Your task to perform on an android device: Add energizer triple a to the cart on amazon.com Image 0: 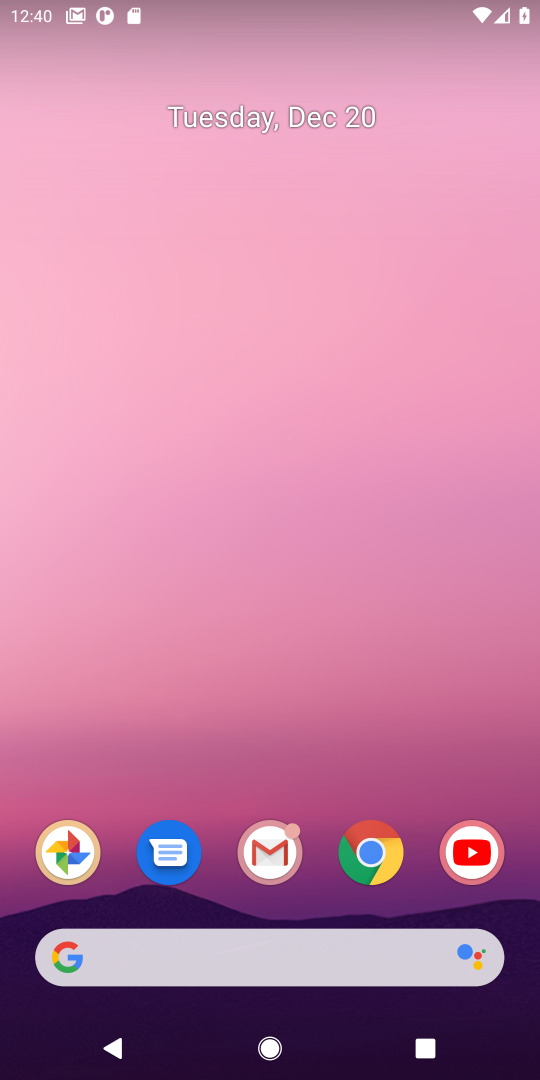
Step 0: press home button
Your task to perform on an android device: Add energizer triple a to the cart on amazon.com Image 1: 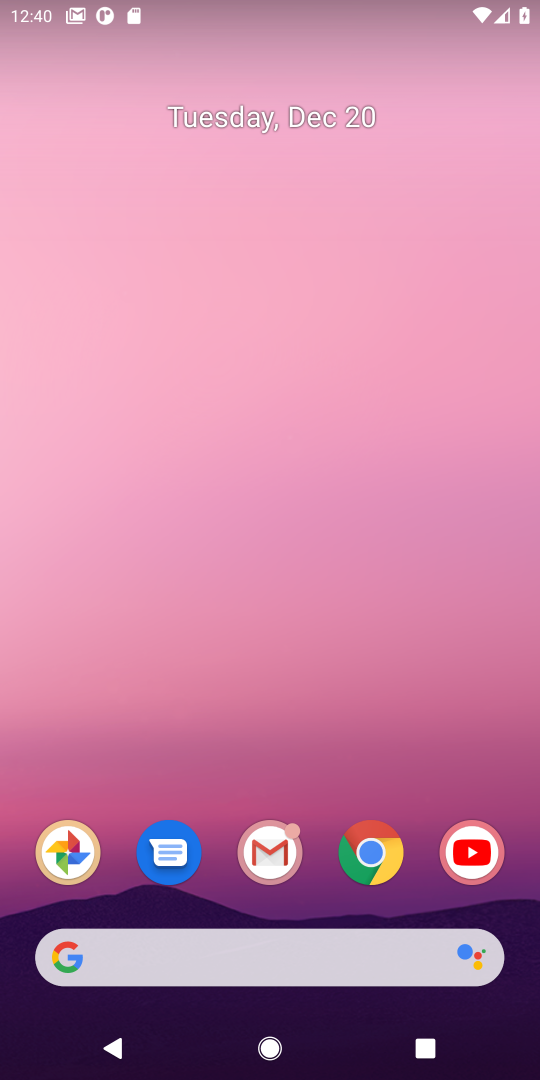
Step 1: click (375, 854)
Your task to perform on an android device: Add energizer triple a to the cart on amazon.com Image 2: 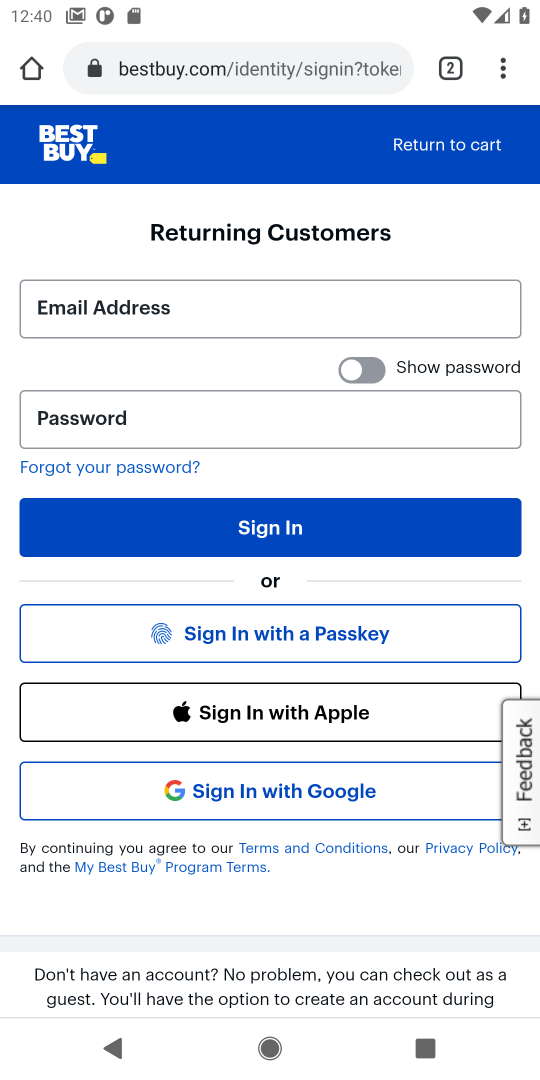
Step 2: click (216, 74)
Your task to perform on an android device: Add energizer triple a to the cart on amazon.com Image 3: 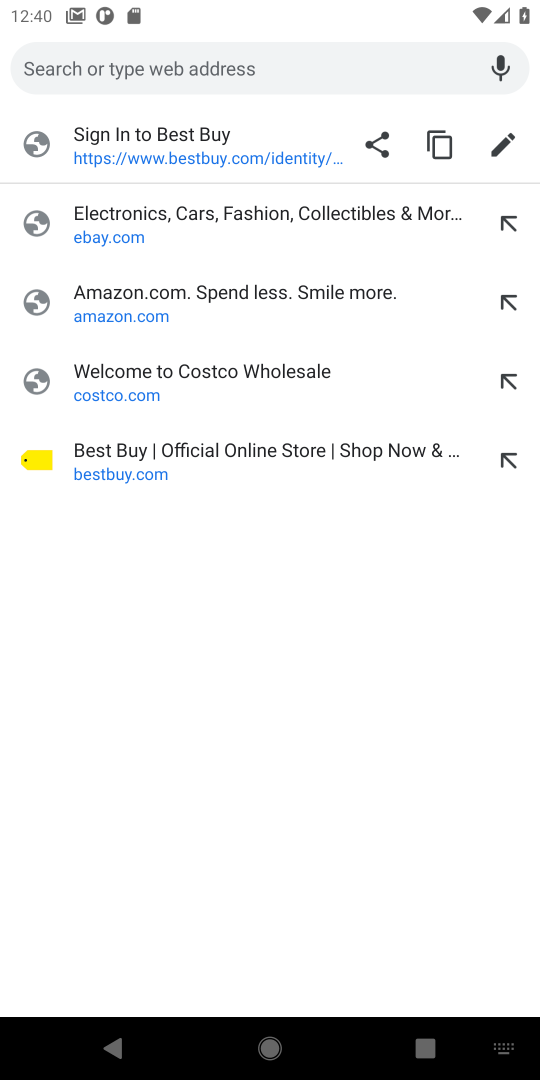
Step 3: click (131, 297)
Your task to perform on an android device: Add energizer triple a to the cart on amazon.com Image 4: 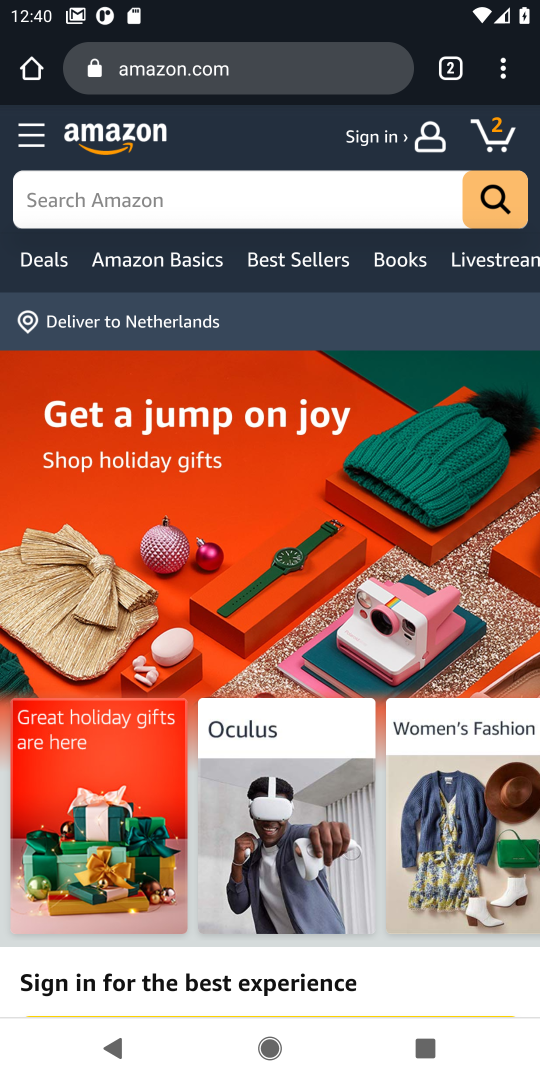
Step 4: click (142, 209)
Your task to perform on an android device: Add energizer triple a to the cart on amazon.com Image 5: 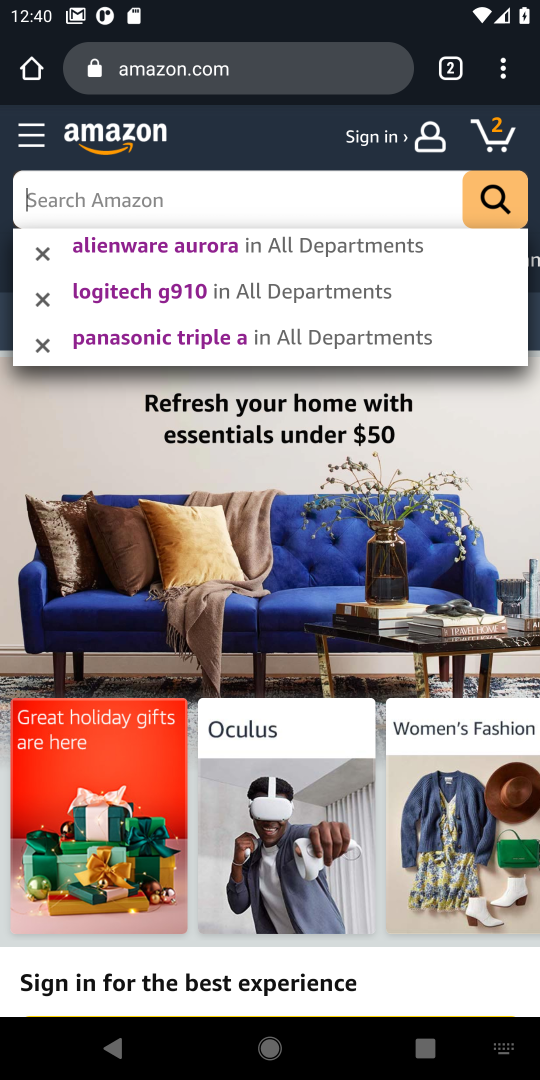
Step 5: type "energizer triple a"
Your task to perform on an android device: Add energizer triple a to the cart on amazon.com Image 6: 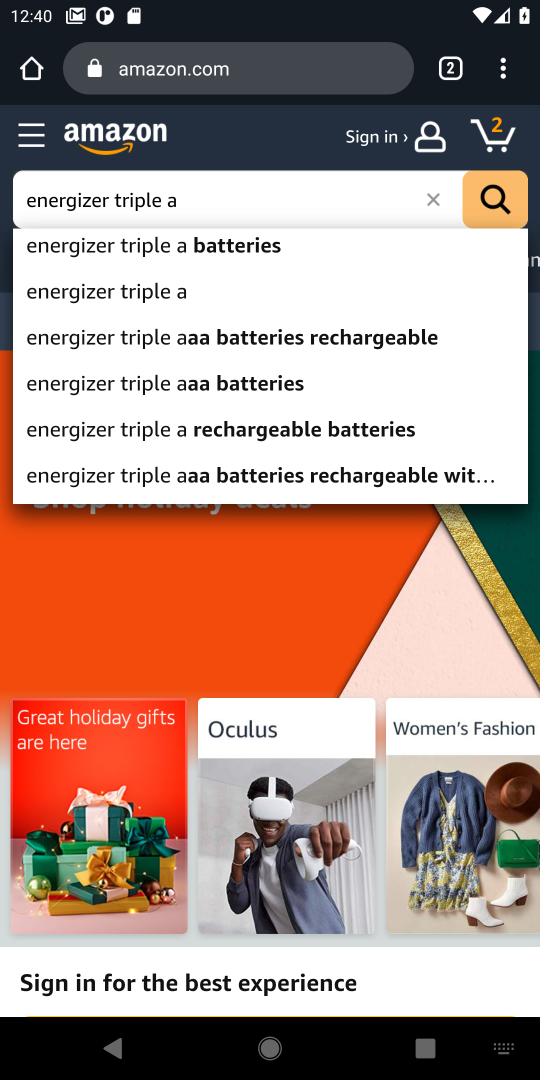
Step 6: click (165, 254)
Your task to perform on an android device: Add energizer triple a to the cart on amazon.com Image 7: 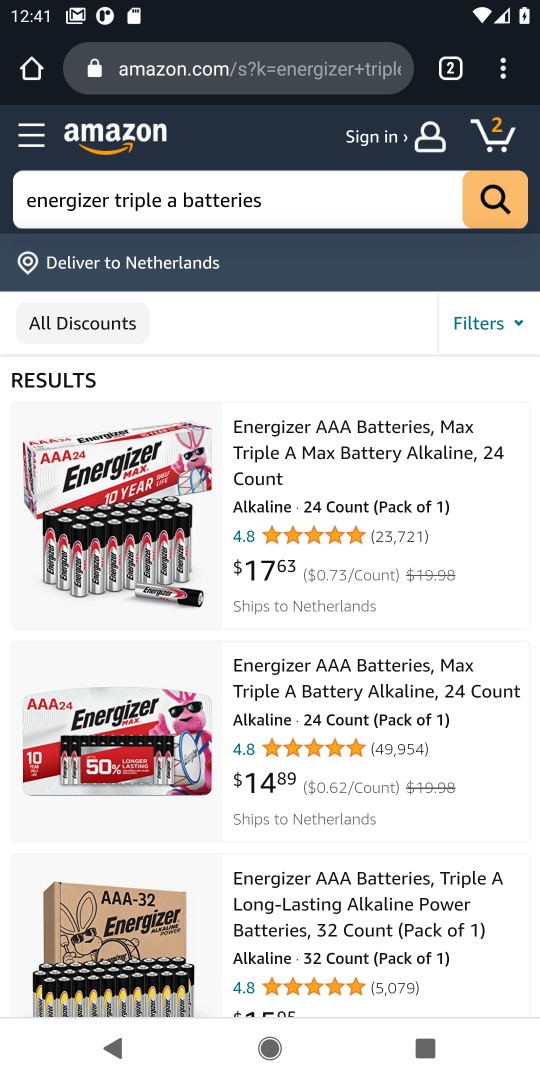
Step 7: click (297, 457)
Your task to perform on an android device: Add energizer triple a to the cart on amazon.com Image 8: 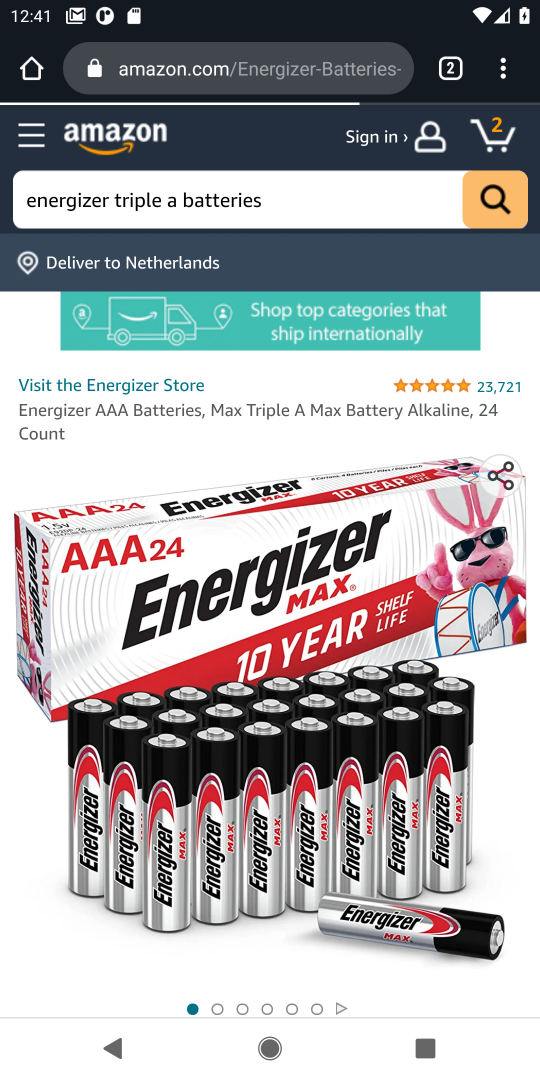
Step 8: drag from (252, 658) to (279, 425)
Your task to perform on an android device: Add energizer triple a to the cart on amazon.com Image 9: 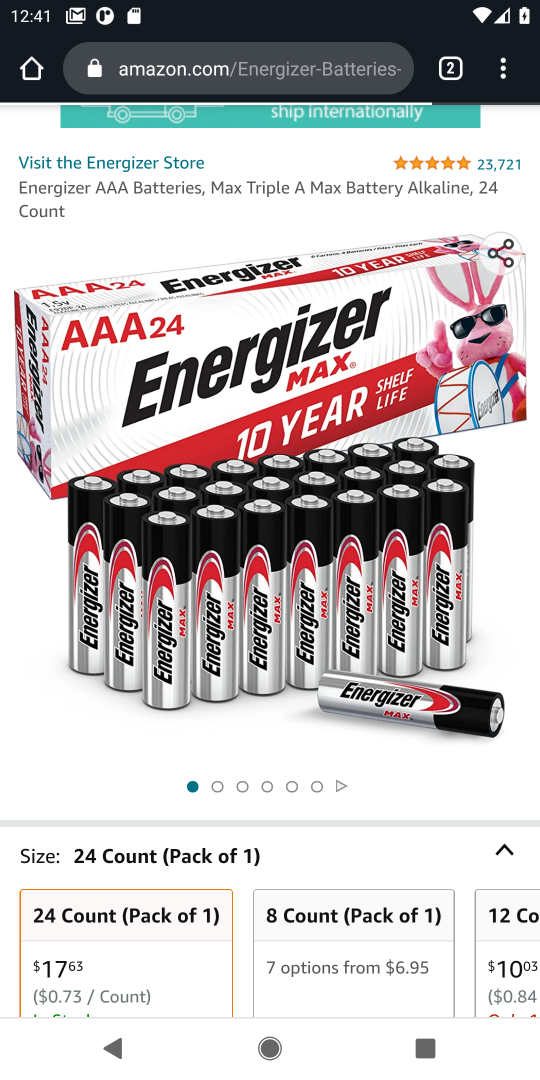
Step 9: drag from (256, 798) to (271, 464)
Your task to perform on an android device: Add energizer triple a to the cart on amazon.com Image 10: 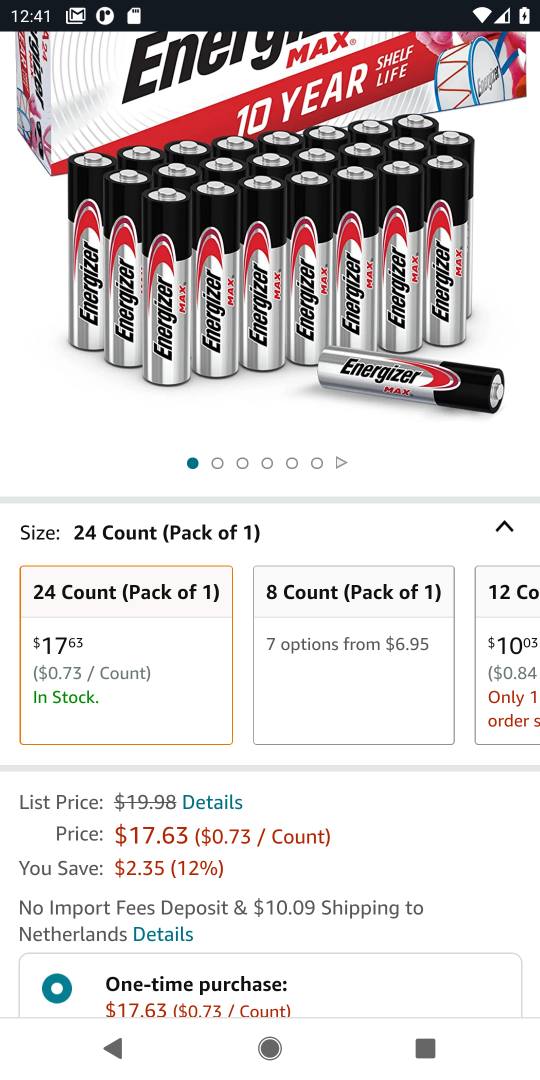
Step 10: drag from (318, 751) to (323, 469)
Your task to perform on an android device: Add energizer triple a to the cart on amazon.com Image 11: 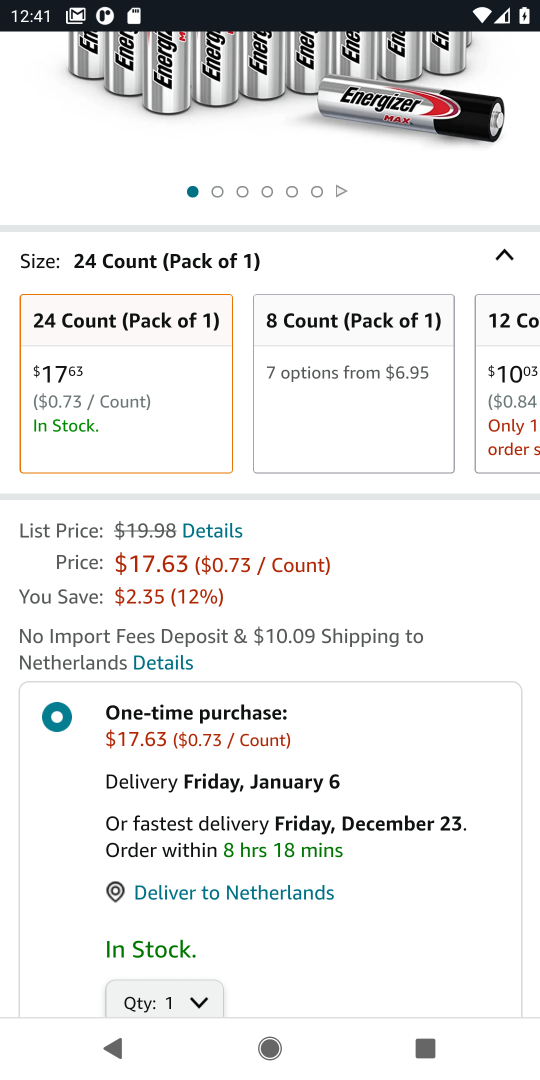
Step 11: drag from (285, 738) to (319, 469)
Your task to perform on an android device: Add energizer triple a to the cart on amazon.com Image 12: 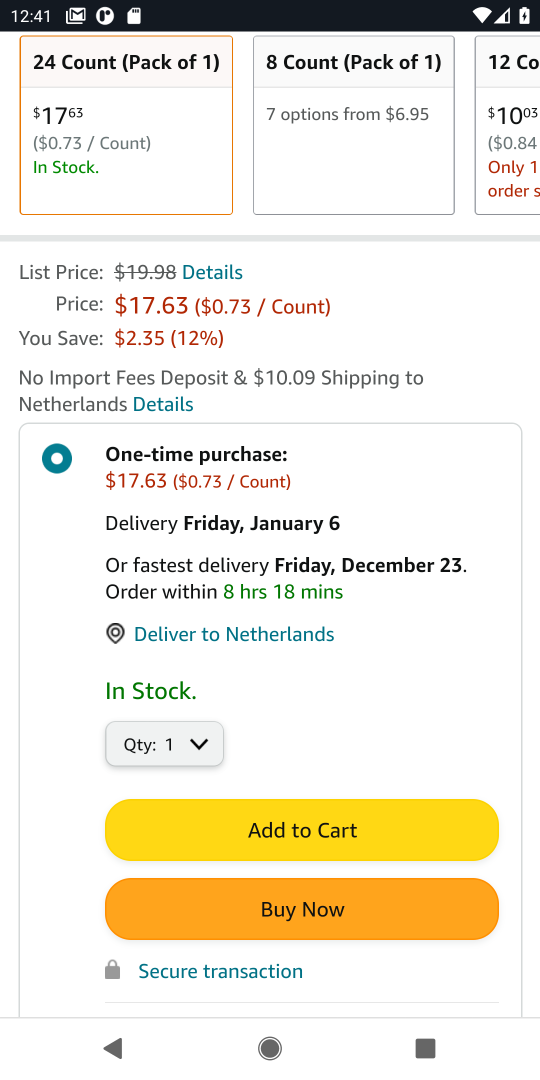
Step 12: click (280, 825)
Your task to perform on an android device: Add energizer triple a to the cart on amazon.com Image 13: 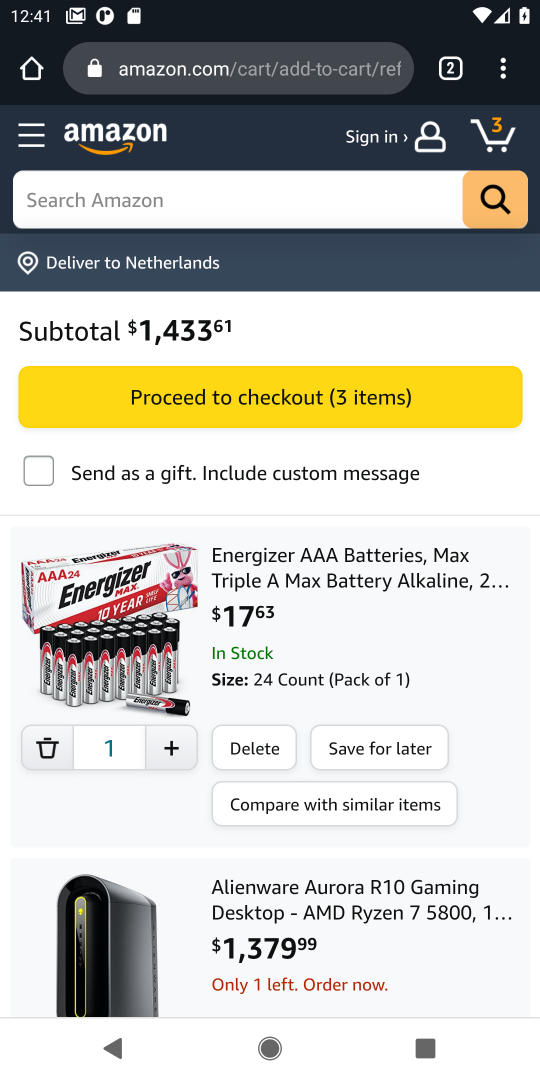
Step 13: task complete